Your task to perform on an android device: Open CNN.com Image 0: 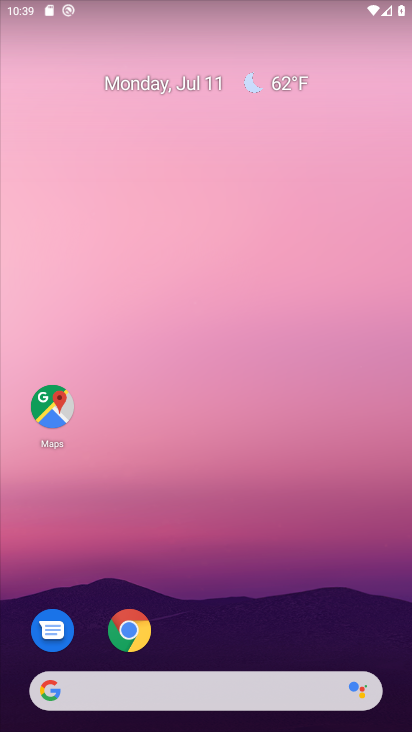
Step 0: drag from (304, 560) to (304, 451)
Your task to perform on an android device: Open CNN.com Image 1: 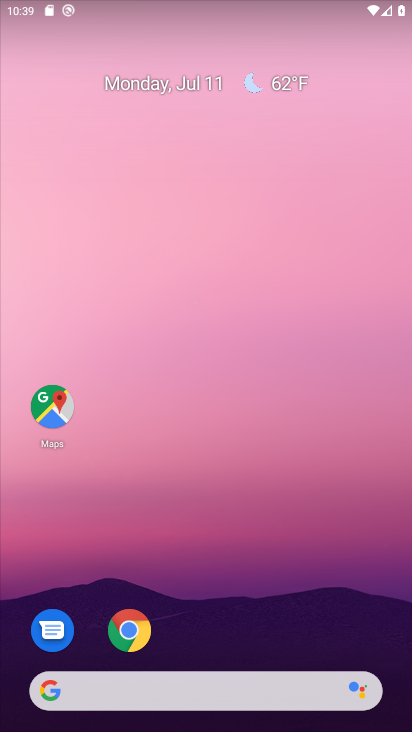
Step 1: click (175, 690)
Your task to perform on an android device: Open CNN.com Image 2: 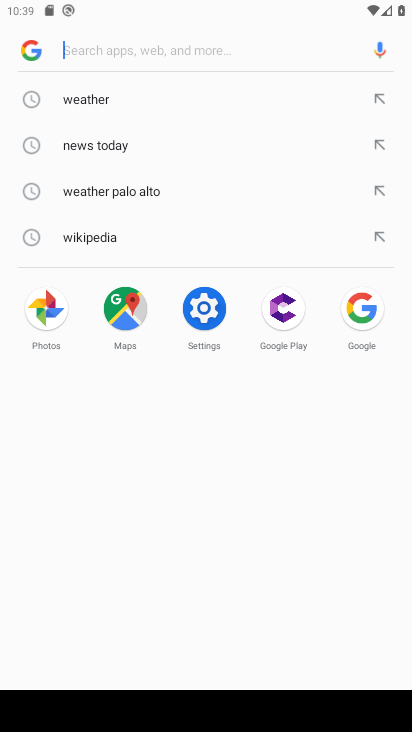
Step 2: type "cnn.com"
Your task to perform on an android device: Open CNN.com Image 3: 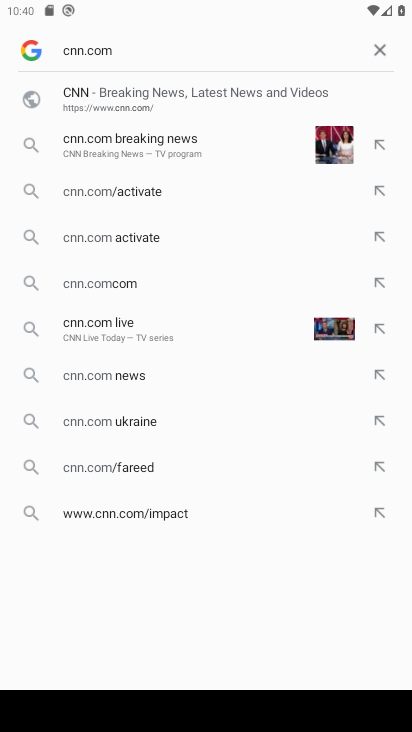
Step 3: click (85, 99)
Your task to perform on an android device: Open CNN.com Image 4: 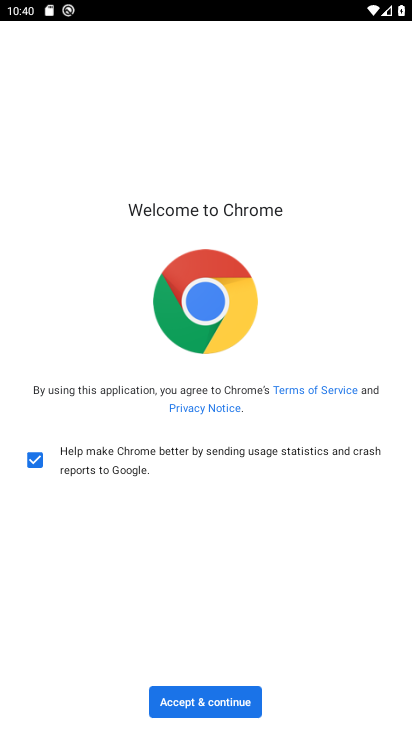
Step 4: click (252, 704)
Your task to perform on an android device: Open CNN.com Image 5: 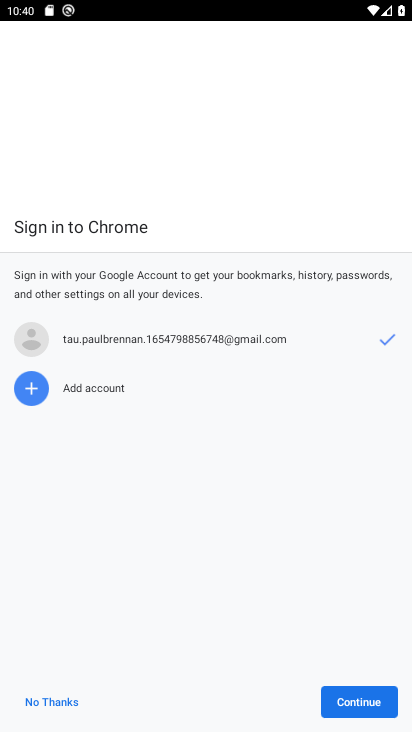
Step 5: click (345, 692)
Your task to perform on an android device: Open CNN.com Image 6: 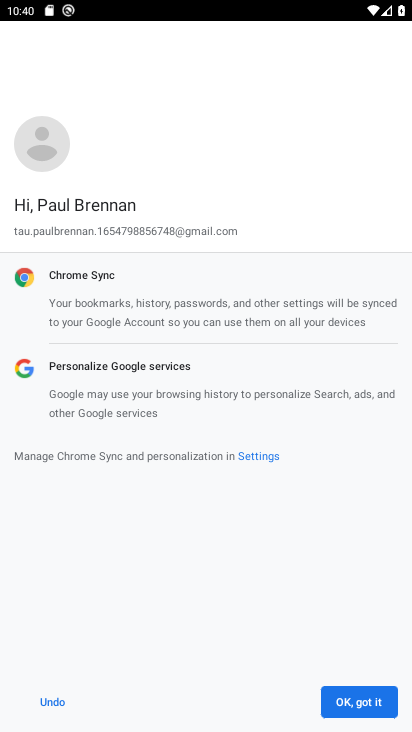
Step 6: click (354, 705)
Your task to perform on an android device: Open CNN.com Image 7: 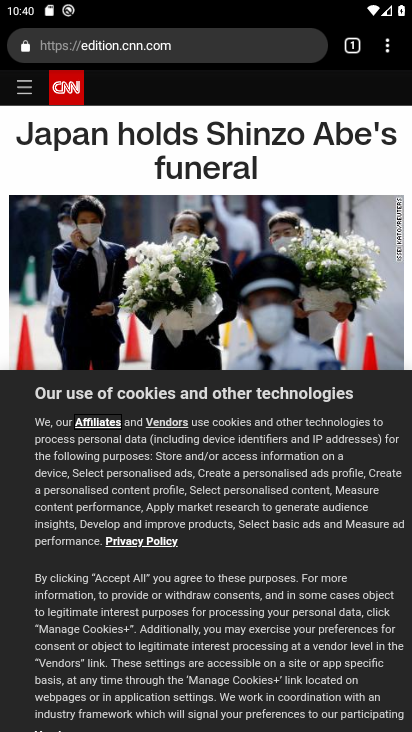
Step 7: task complete